Your task to perform on an android device: turn on the 24-hour format for clock Image 0: 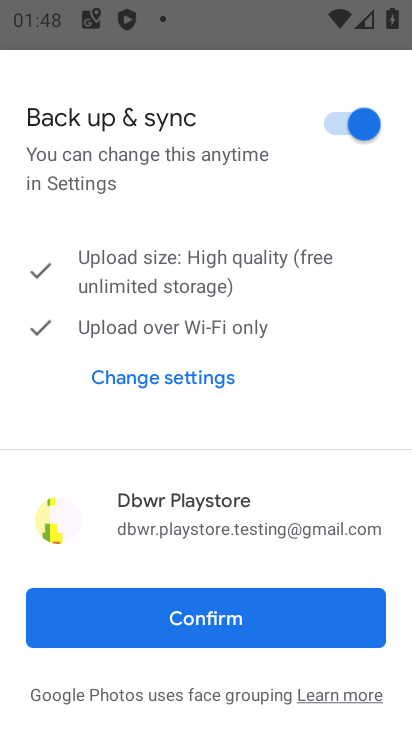
Step 0: press home button
Your task to perform on an android device: turn on the 24-hour format for clock Image 1: 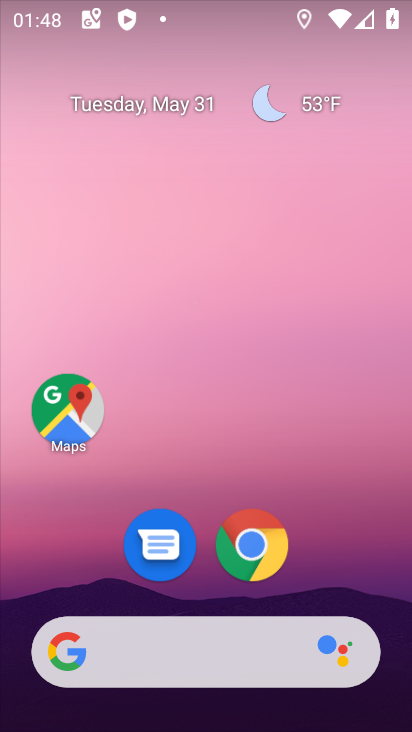
Step 1: drag from (376, 607) to (324, 55)
Your task to perform on an android device: turn on the 24-hour format for clock Image 2: 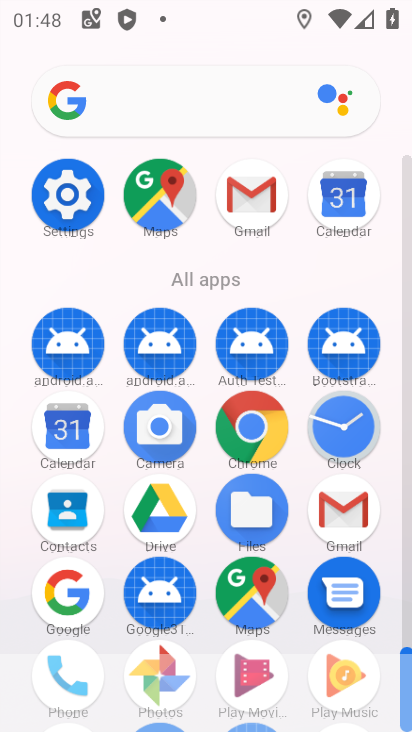
Step 2: click (339, 428)
Your task to perform on an android device: turn on the 24-hour format for clock Image 3: 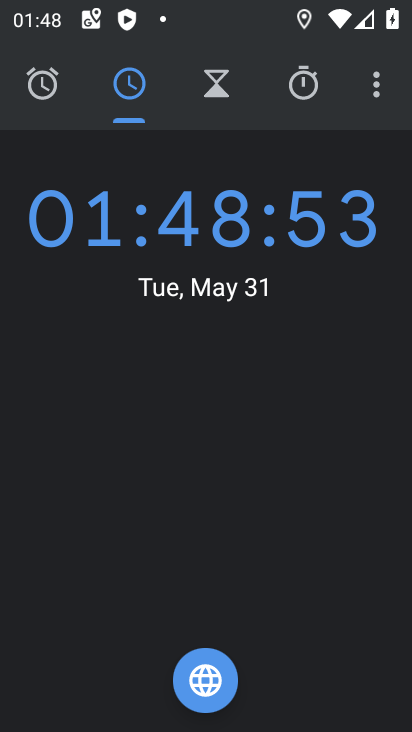
Step 3: click (375, 81)
Your task to perform on an android device: turn on the 24-hour format for clock Image 4: 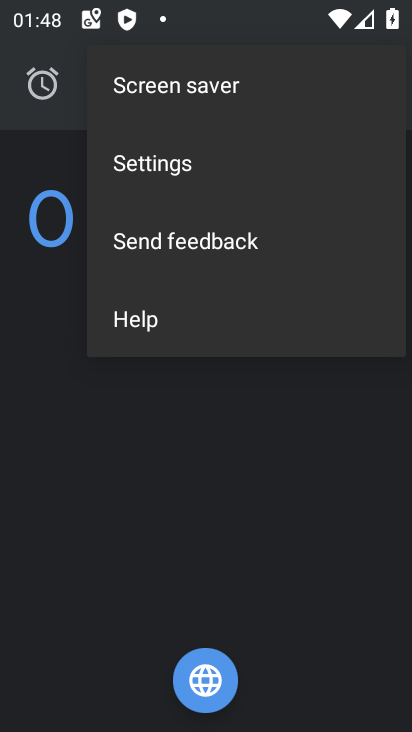
Step 4: click (189, 170)
Your task to perform on an android device: turn on the 24-hour format for clock Image 5: 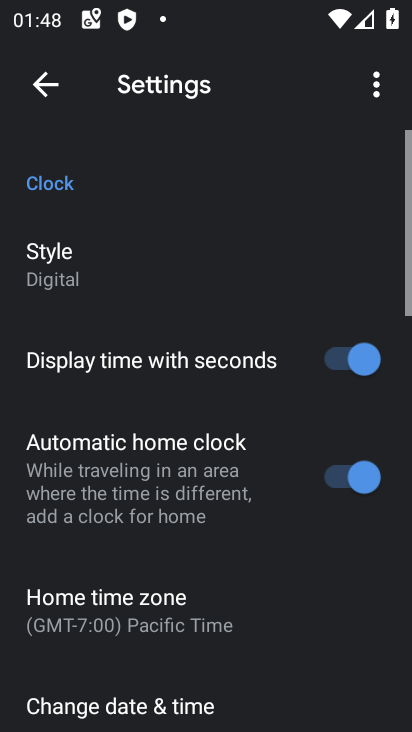
Step 5: drag from (214, 613) to (214, 228)
Your task to perform on an android device: turn on the 24-hour format for clock Image 6: 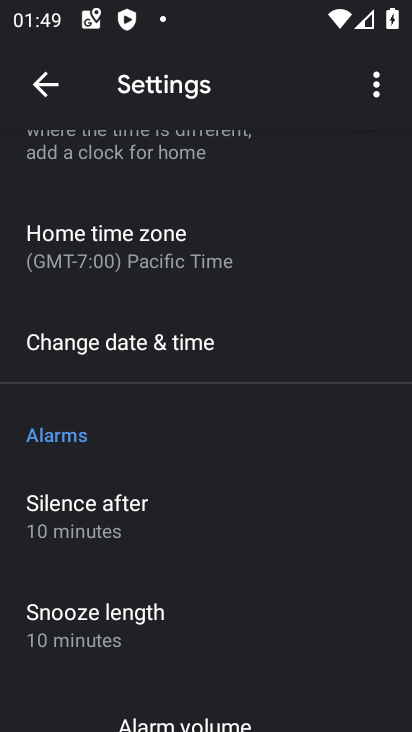
Step 6: click (208, 357)
Your task to perform on an android device: turn on the 24-hour format for clock Image 7: 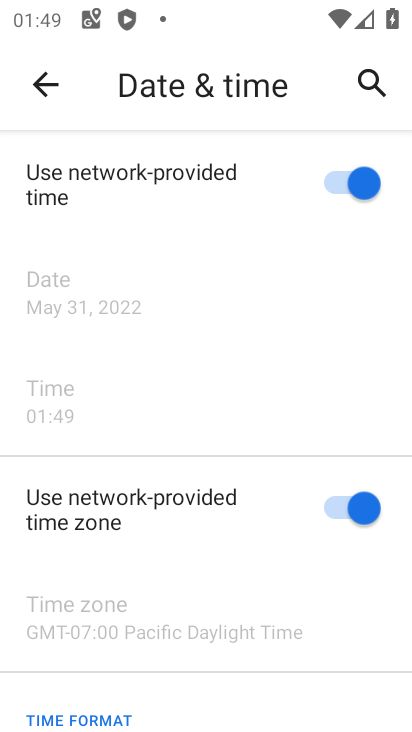
Step 7: task complete